Your task to perform on an android device: turn off improve location accuracy Image 0: 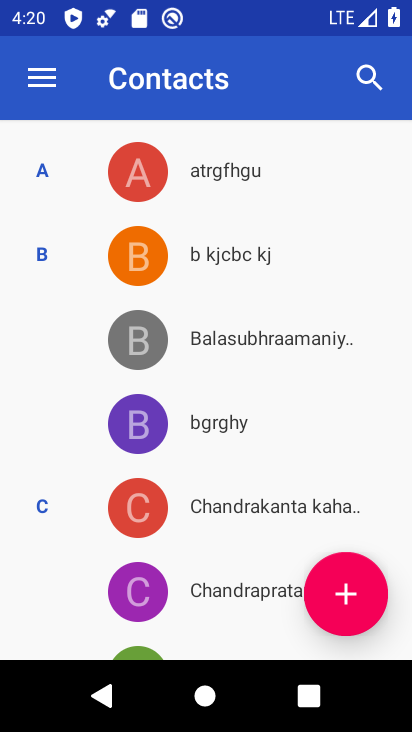
Step 0: press home button
Your task to perform on an android device: turn off improve location accuracy Image 1: 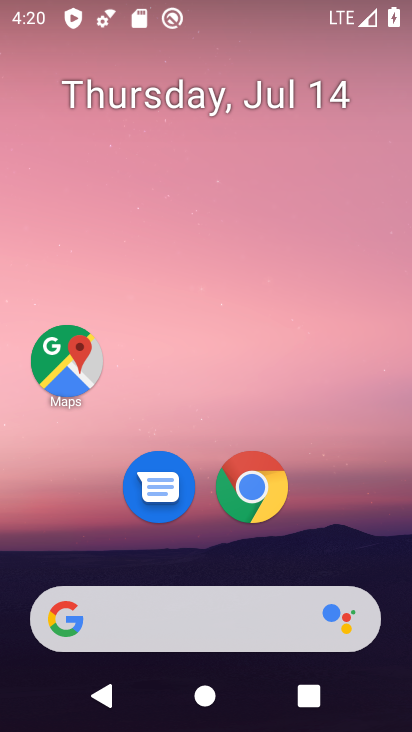
Step 1: drag from (381, 558) to (299, 79)
Your task to perform on an android device: turn off improve location accuracy Image 2: 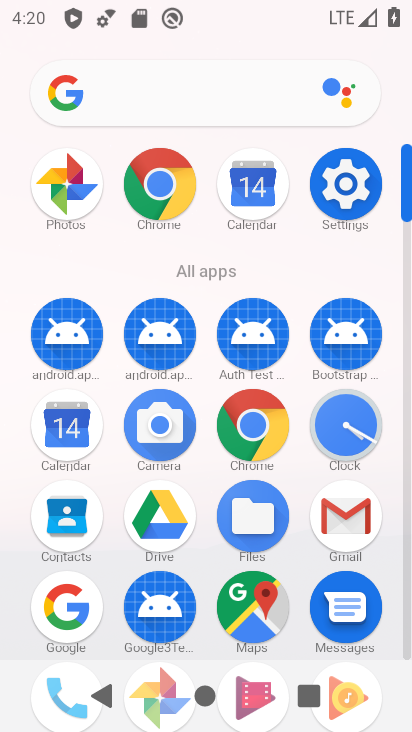
Step 2: click (351, 170)
Your task to perform on an android device: turn off improve location accuracy Image 3: 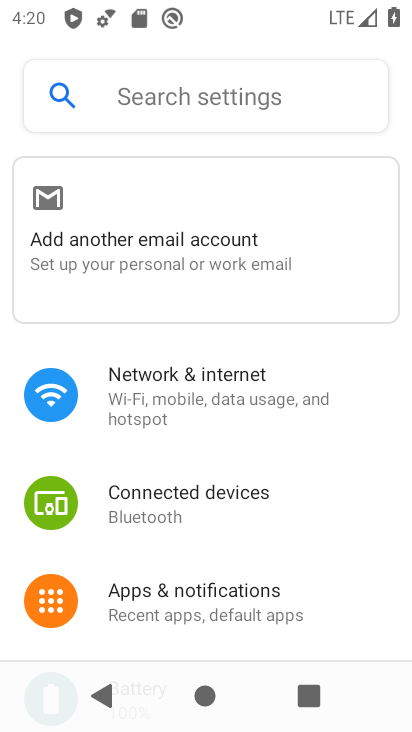
Step 3: drag from (294, 595) to (267, 244)
Your task to perform on an android device: turn off improve location accuracy Image 4: 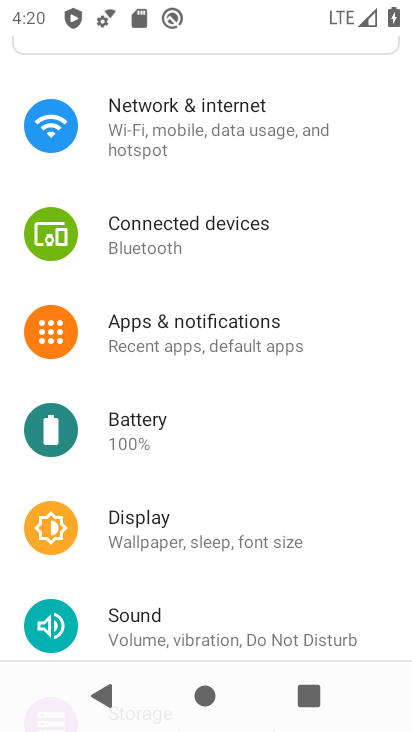
Step 4: drag from (282, 575) to (232, 186)
Your task to perform on an android device: turn off improve location accuracy Image 5: 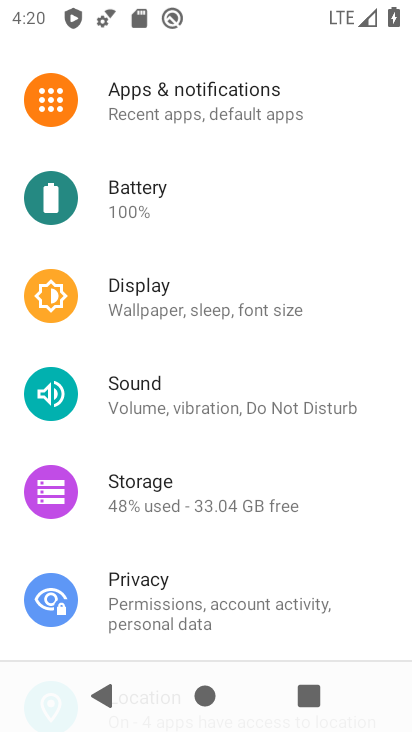
Step 5: drag from (263, 589) to (218, 171)
Your task to perform on an android device: turn off improve location accuracy Image 6: 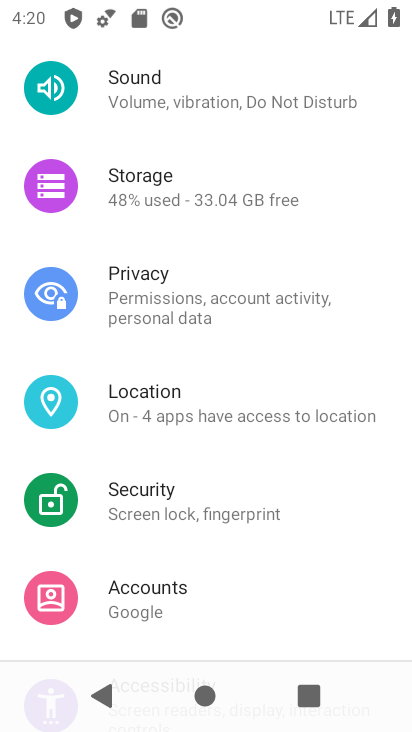
Step 6: click (220, 407)
Your task to perform on an android device: turn off improve location accuracy Image 7: 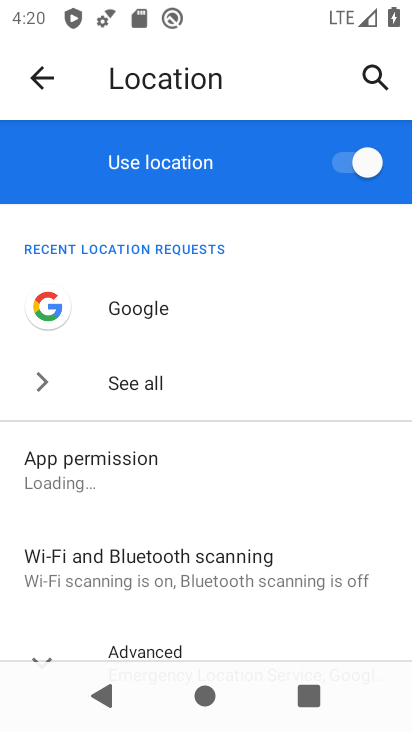
Step 7: drag from (258, 533) to (199, 255)
Your task to perform on an android device: turn off improve location accuracy Image 8: 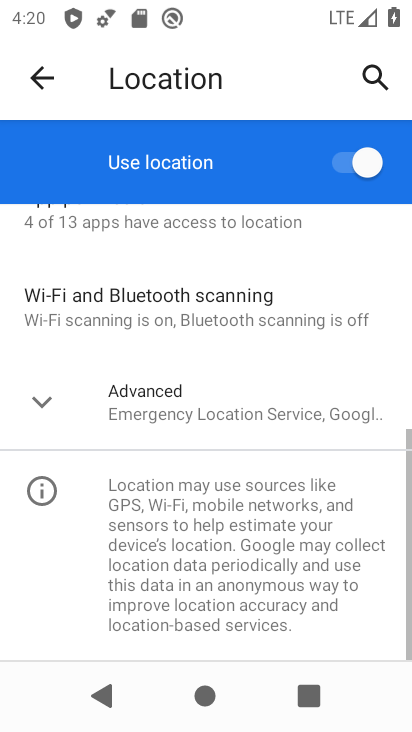
Step 8: click (253, 416)
Your task to perform on an android device: turn off improve location accuracy Image 9: 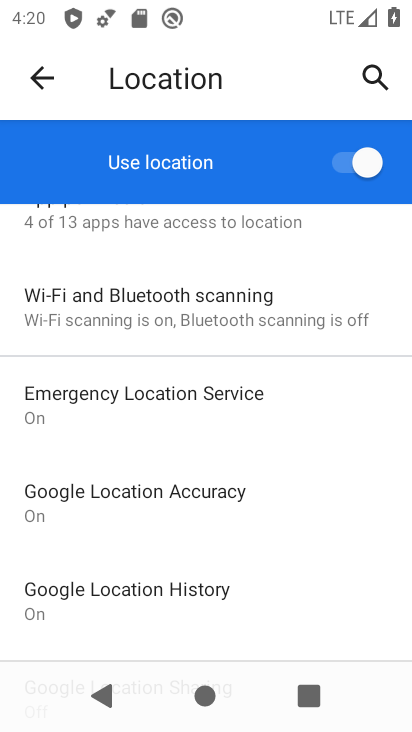
Step 9: click (263, 516)
Your task to perform on an android device: turn off improve location accuracy Image 10: 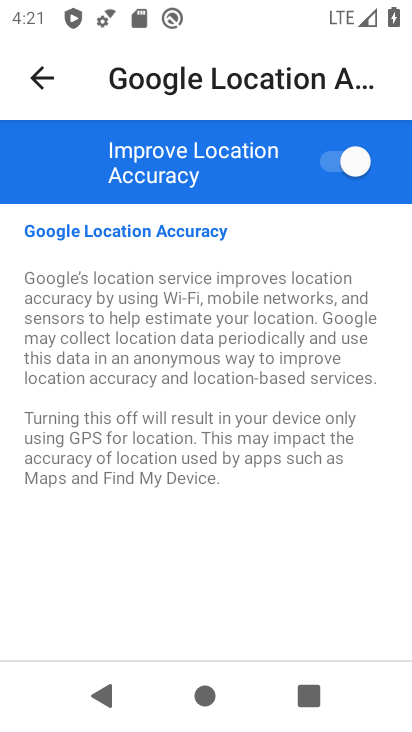
Step 10: click (338, 174)
Your task to perform on an android device: turn off improve location accuracy Image 11: 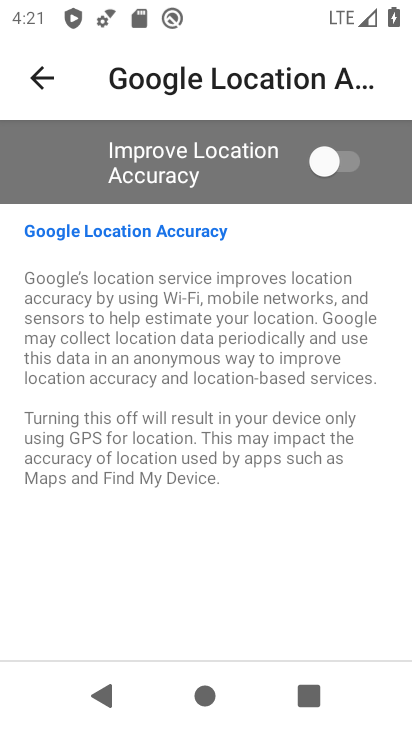
Step 11: task complete